Your task to perform on an android device: open wifi settings Image 0: 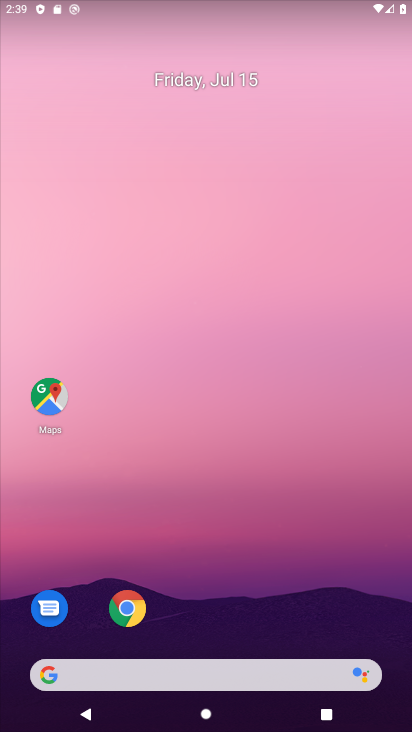
Step 0: drag from (304, 611) to (219, 61)
Your task to perform on an android device: open wifi settings Image 1: 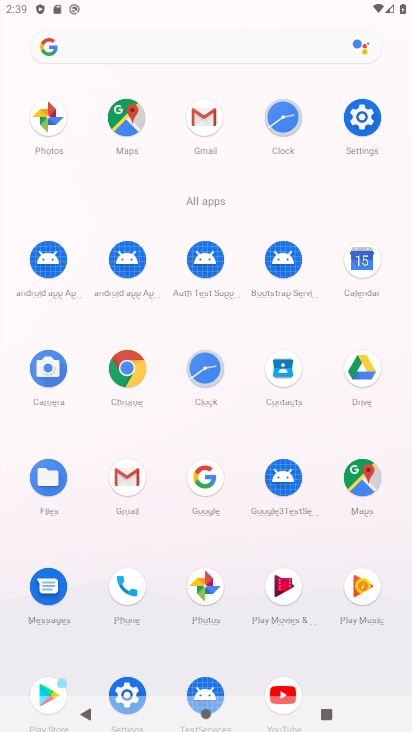
Step 1: click (370, 128)
Your task to perform on an android device: open wifi settings Image 2: 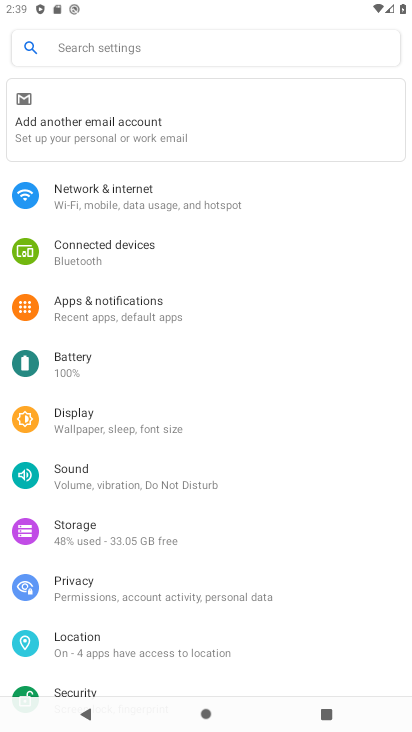
Step 2: click (251, 196)
Your task to perform on an android device: open wifi settings Image 3: 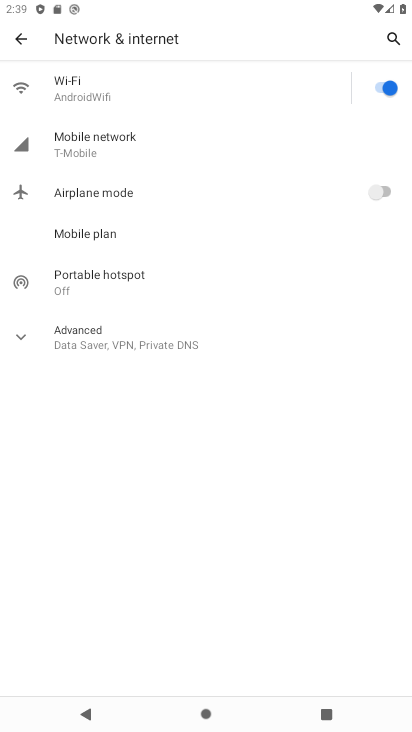
Step 3: click (291, 100)
Your task to perform on an android device: open wifi settings Image 4: 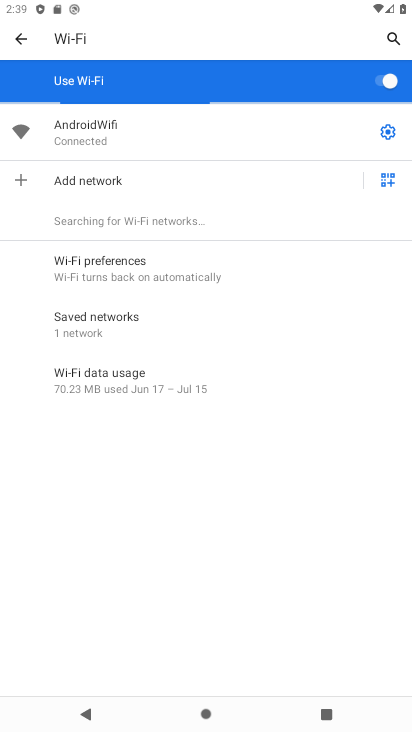
Step 4: task complete